Your task to perform on an android device: Open eBay Image 0: 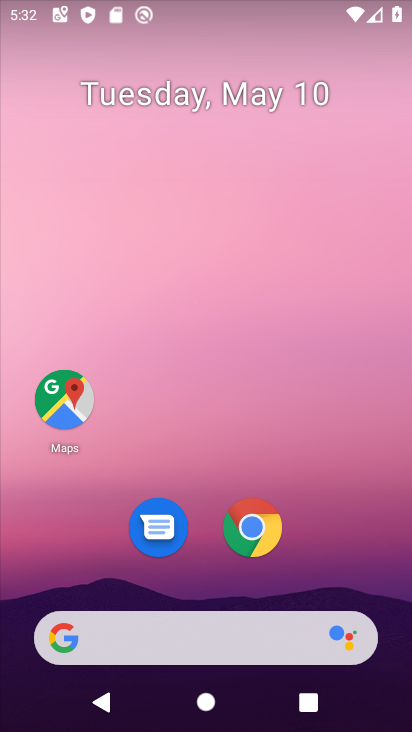
Step 0: click (257, 529)
Your task to perform on an android device: Open eBay Image 1: 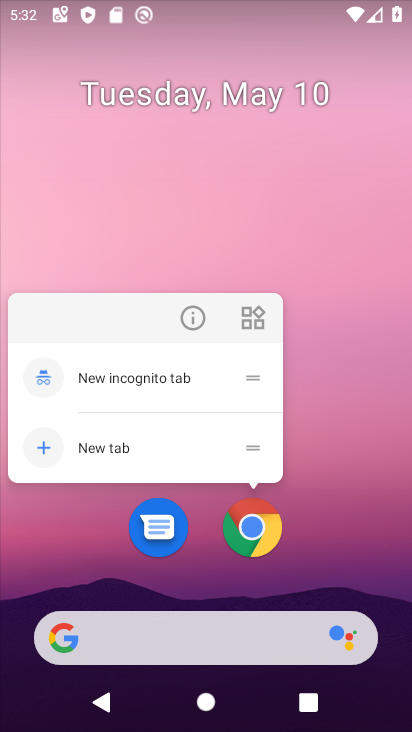
Step 1: click (261, 518)
Your task to perform on an android device: Open eBay Image 2: 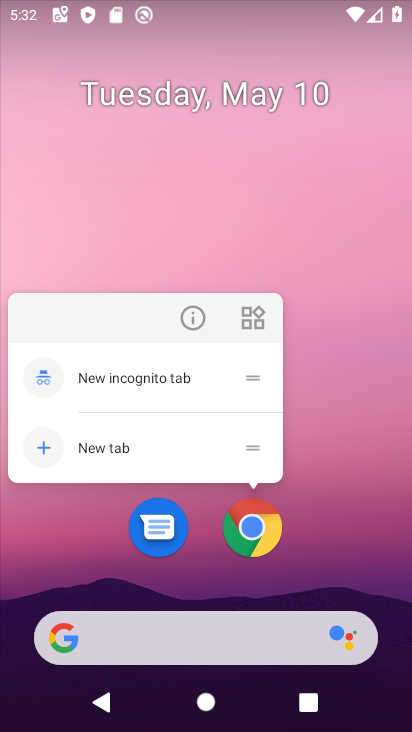
Step 2: click (258, 528)
Your task to perform on an android device: Open eBay Image 3: 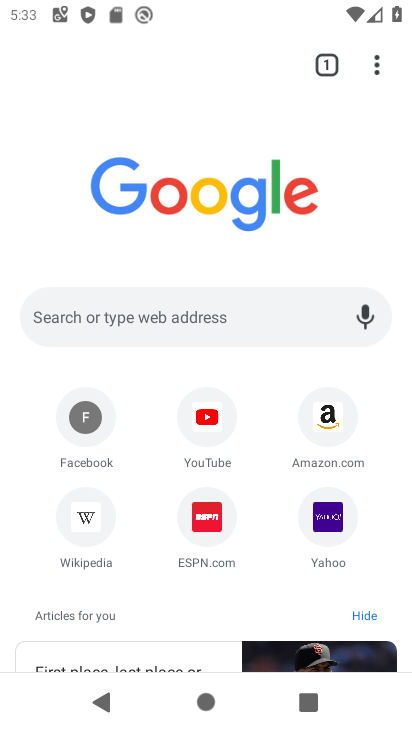
Step 3: click (141, 312)
Your task to perform on an android device: Open eBay Image 4: 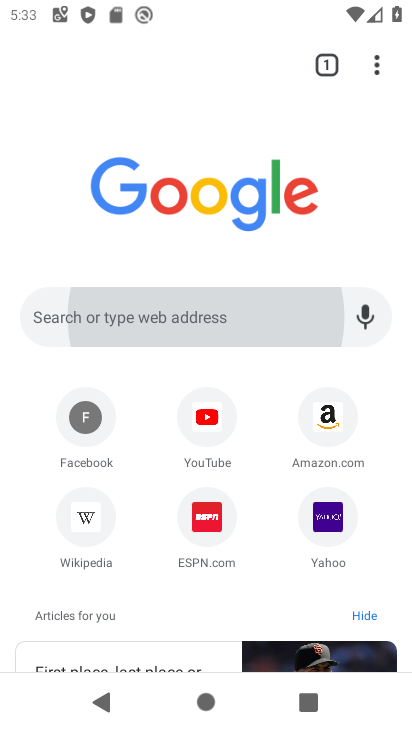
Step 4: click (165, 310)
Your task to perform on an android device: Open eBay Image 5: 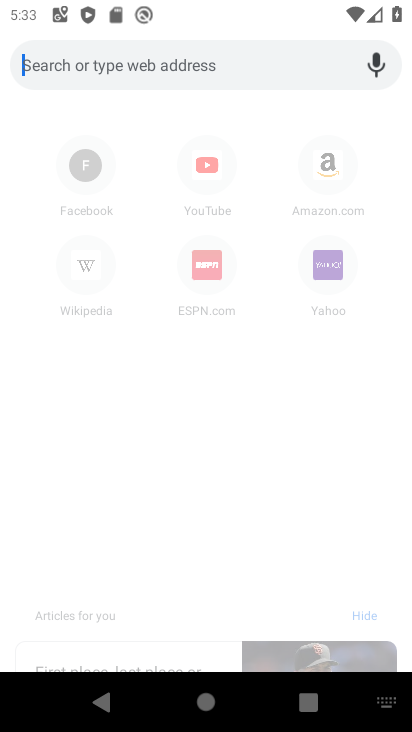
Step 5: type "eBay"
Your task to perform on an android device: Open eBay Image 6: 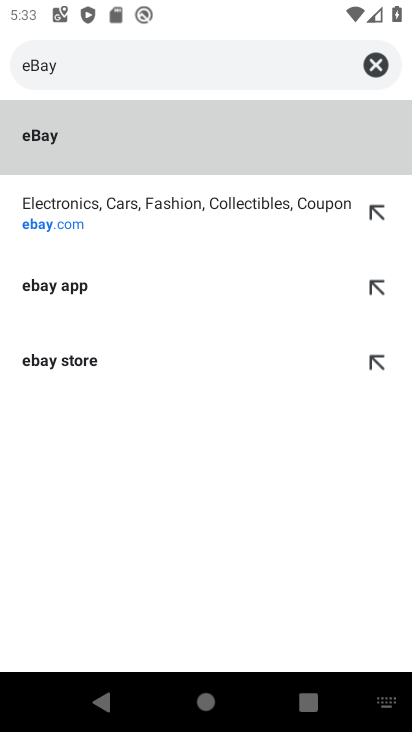
Step 6: click (97, 124)
Your task to perform on an android device: Open eBay Image 7: 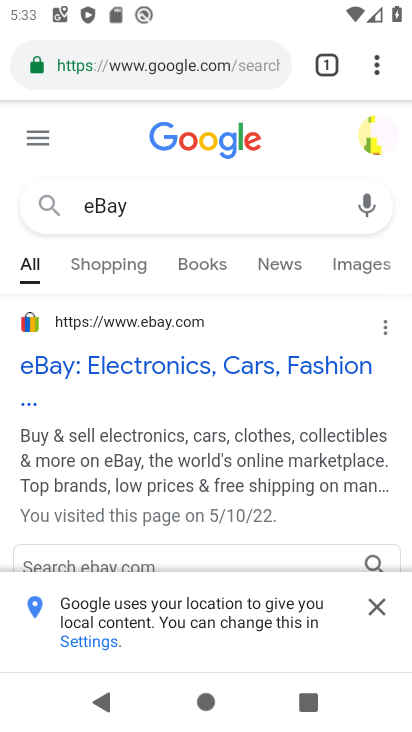
Step 7: task complete